Your task to perform on an android device: change keyboard looks Image 0: 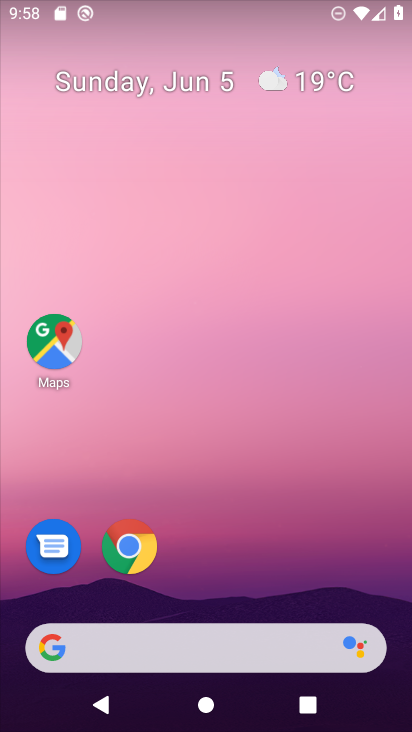
Step 0: drag from (254, 608) to (144, 28)
Your task to perform on an android device: change keyboard looks Image 1: 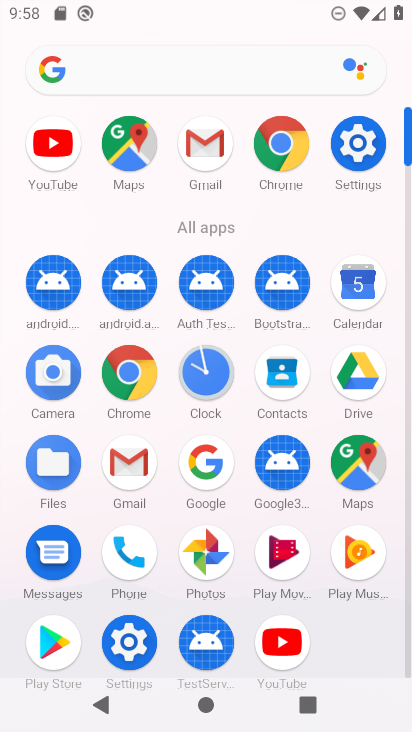
Step 1: click (368, 165)
Your task to perform on an android device: change keyboard looks Image 2: 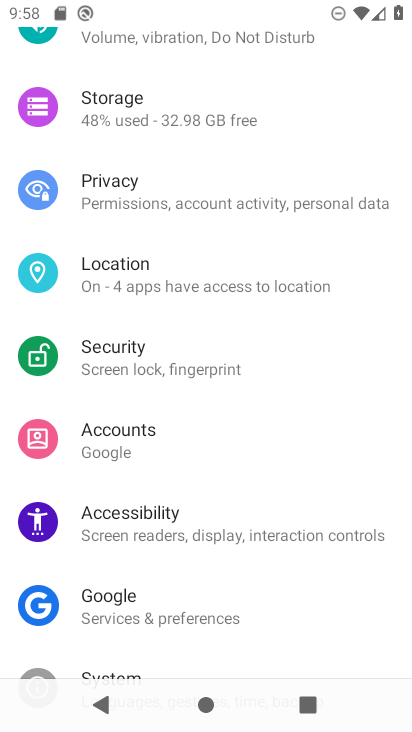
Step 2: click (99, 668)
Your task to perform on an android device: change keyboard looks Image 3: 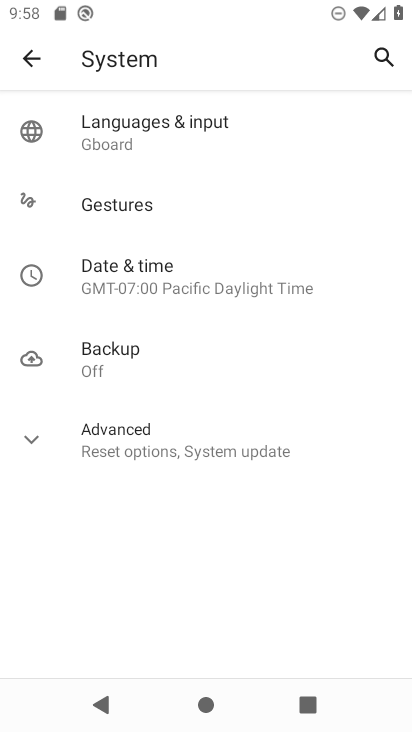
Step 3: click (162, 113)
Your task to perform on an android device: change keyboard looks Image 4: 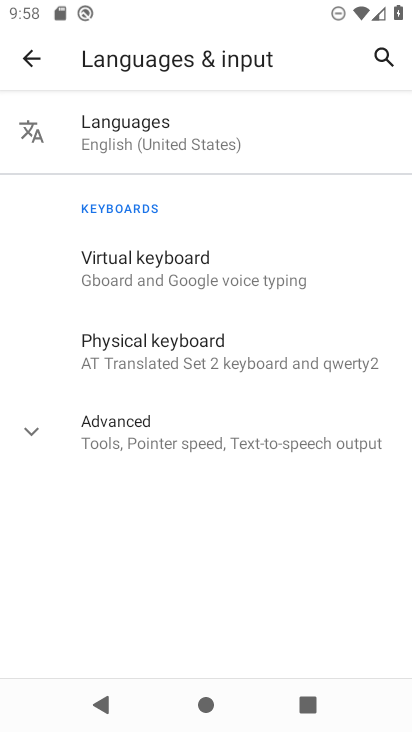
Step 4: click (144, 269)
Your task to perform on an android device: change keyboard looks Image 5: 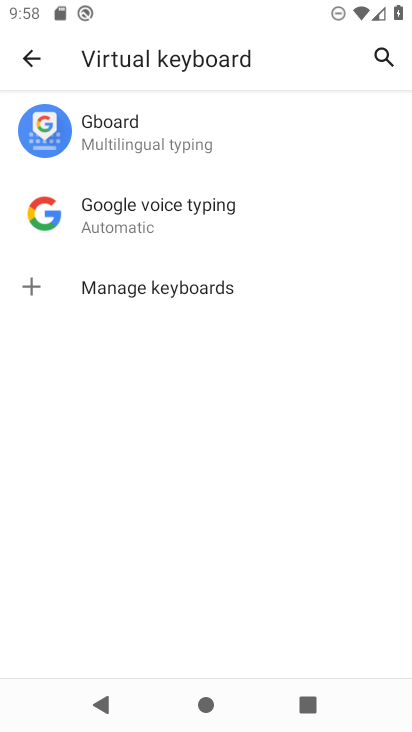
Step 5: click (123, 132)
Your task to perform on an android device: change keyboard looks Image 6: 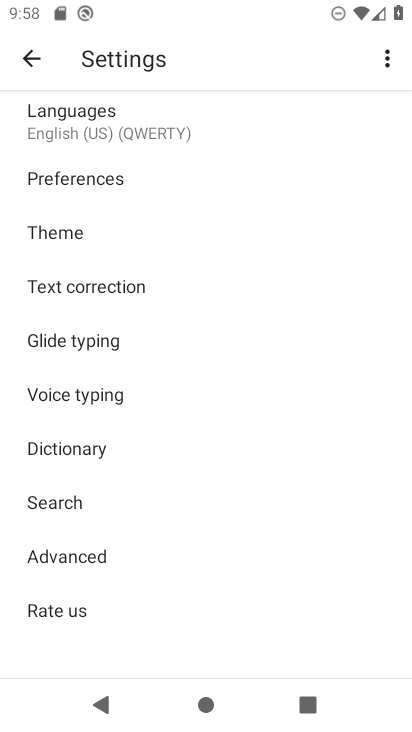
Step 6: click (61, 241)
Your task to perform on an android device: change keyboard looks Image 7: 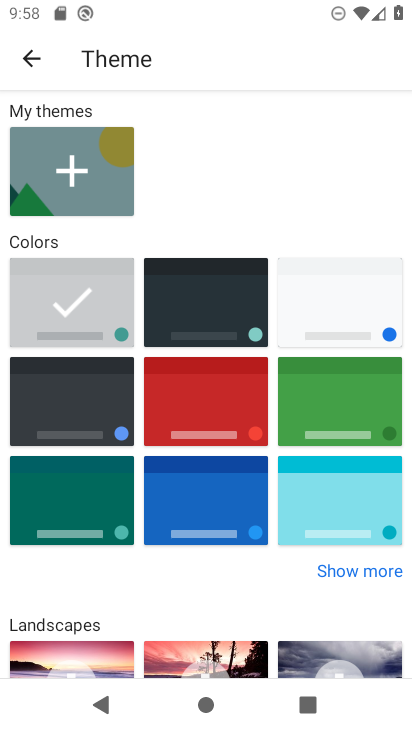
Step 7: click (71, 377)
Your task to perform on an android device: change keyboard looks Image 8: 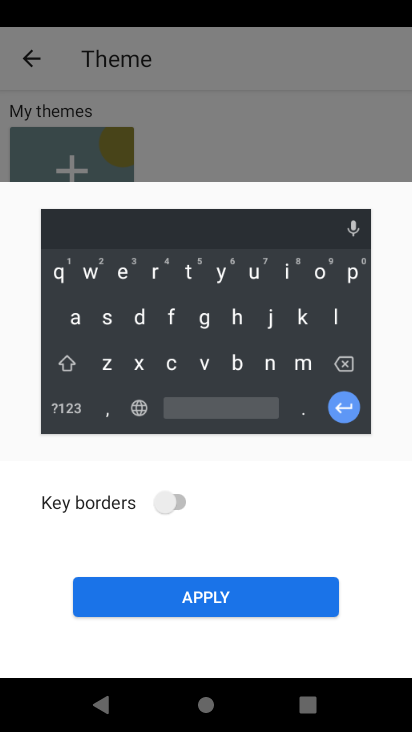
Step 8: task complete